Your task to perform on an android device: Open Google Chrome Image 0: 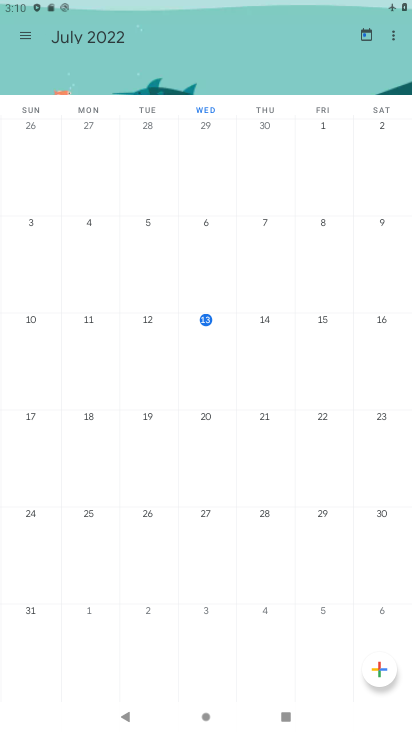
Step 0: press home button
Your task to perform on an android device: Open Google Chrome Image 1: 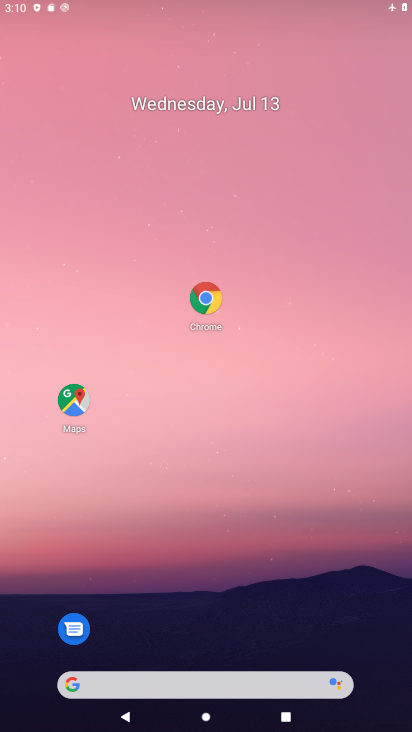
Step 1: drag from (202, 717) to (245, 161)
Your task to perform on an android device: Open Google Chrome Image 2: 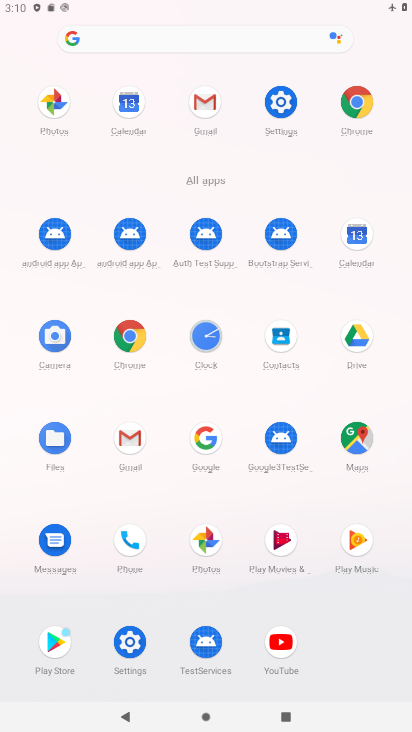
Step 2: click (350, 85)
Your task to perform on an android device: Open Google Chrome Image 3: 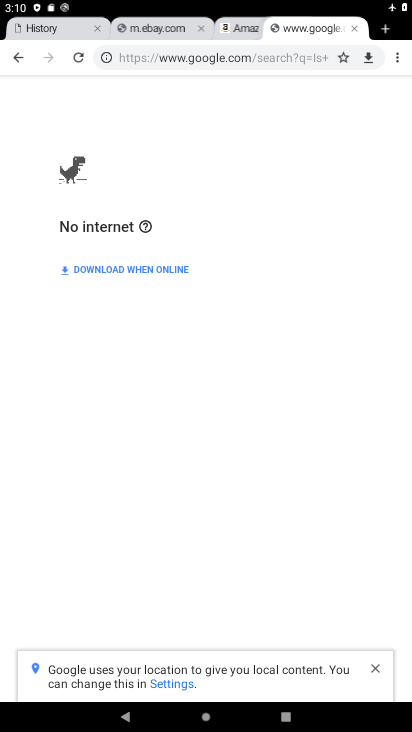
Step 3: task complete